Your task to perform on an android device: see creations saved in the google photos Image 0: 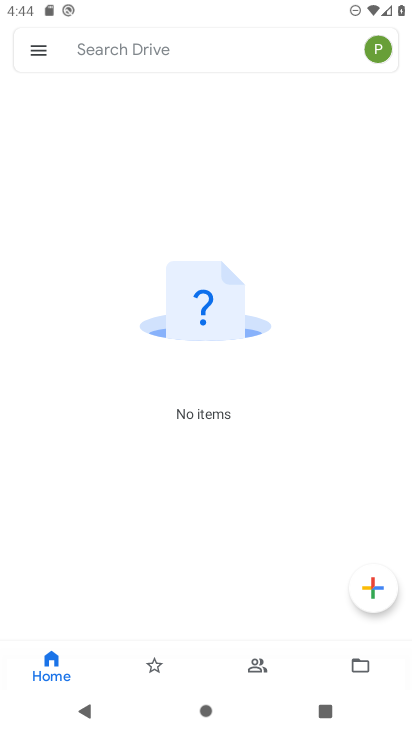
Step 0: press home button
Your task to perform on an android device: see creations saved in the google photos Image 1: 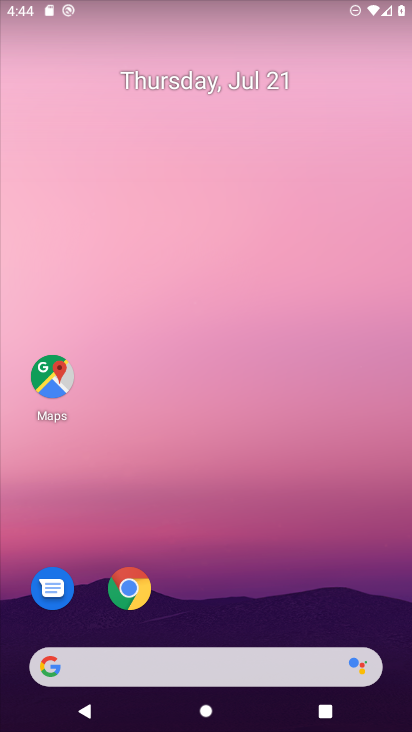
Step 1: drag from (273, 636) to (283, 66)
Your task to perform on an android device: see creations saved in the google photos Image 2: 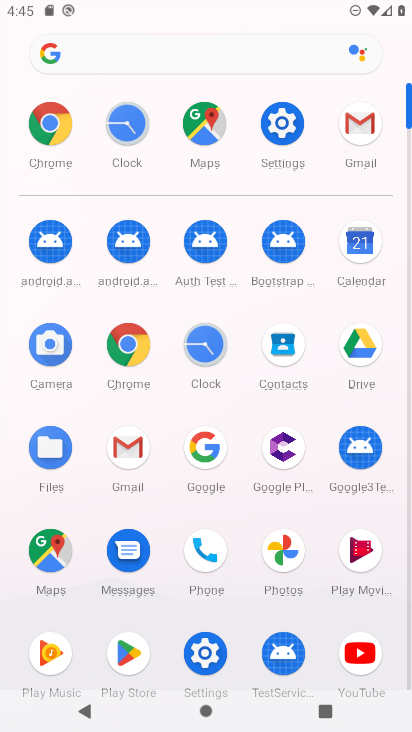
Step 2: click (280, 581)
Your task to perform on an android device: see creations saved in the google photos Image 3: 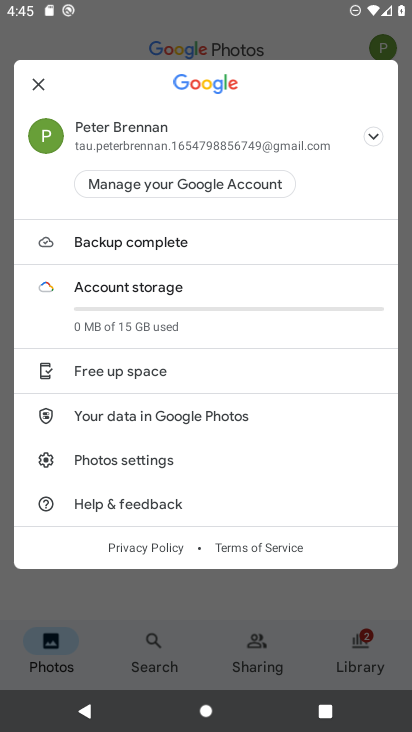
Step 3: click (269, 632)
Your task to perform on an android device: see creations saved in the google photos Image 4: 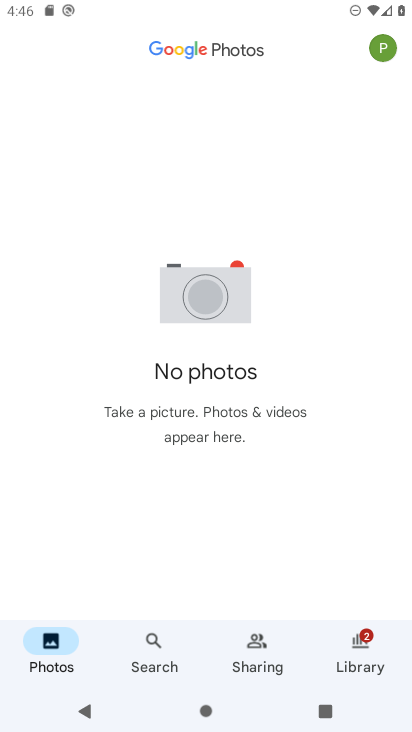
Step 4: task complete